Your task to perform on an android device: turn off smart reply in the gmail app Image 0: 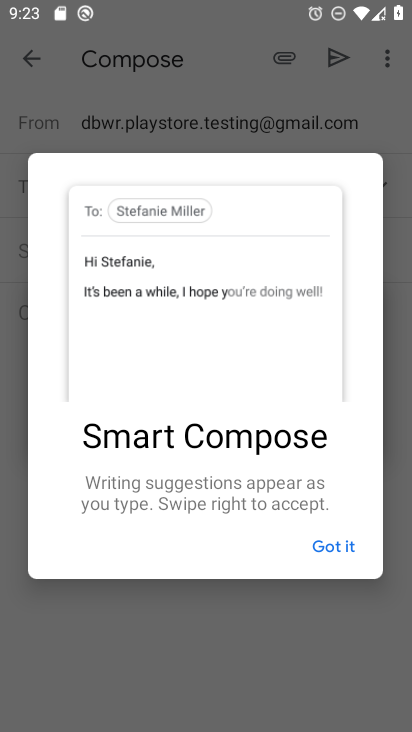
Step 0: press home button
Your task to perform on an android device: turn off smart reply in the gmail app Image 1: 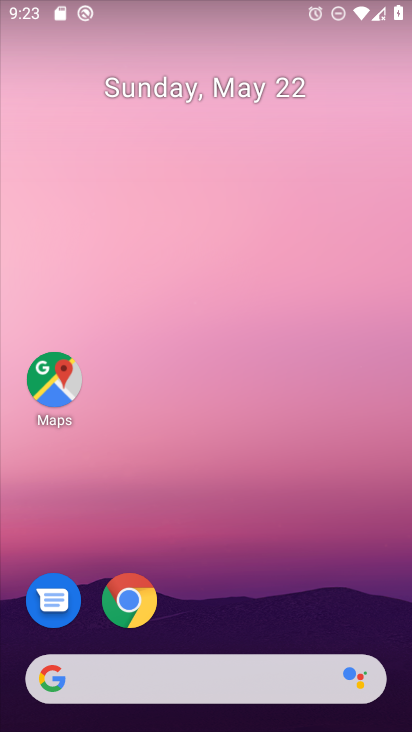
Step 1: drag from (186, 684) to (309, 47)
Your task to perform on an android device: turn off smart reply in the gmail app Image 2: 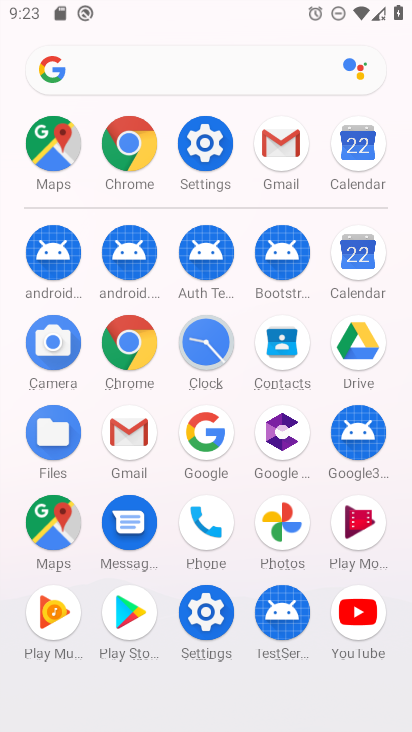
Step 2: click (129, 456)
Your task to perform on an android device: turn off smart reply in the gmail app Image 3: 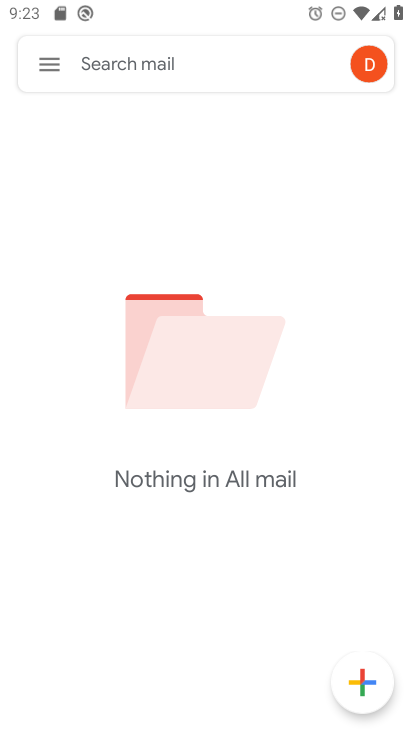
Step 3: click (52, 53)
Your task to perform on an android device: turn off smart reply in the gmail app Image 4: 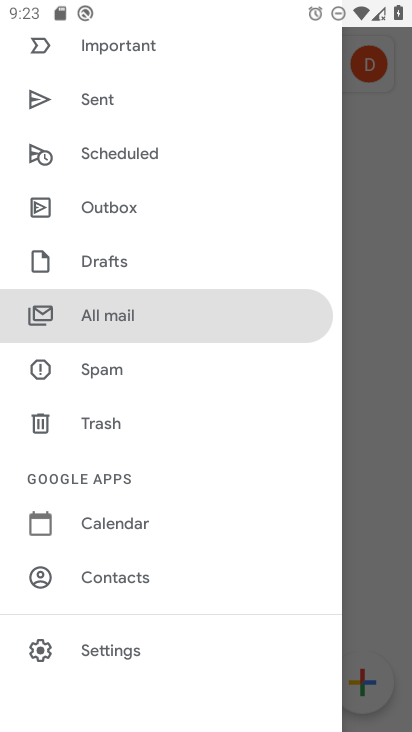
Step 4: click (106, 649)
Your task to perform on an android device: turn off smart reply in the gmail app Image 5: 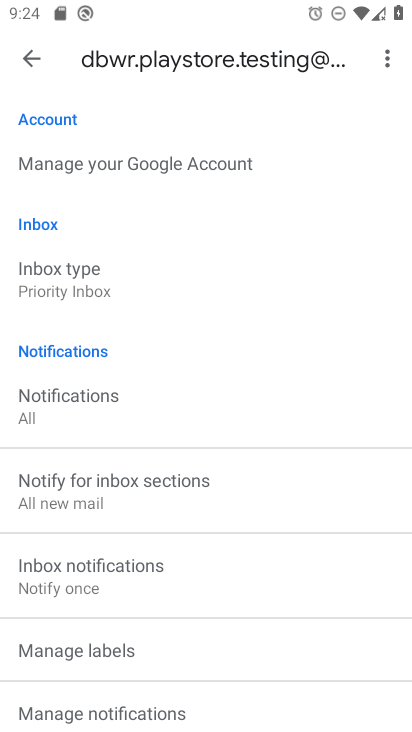
Step 5: drag from (157, 505) to (280, 156)
Your task to perform on an android device: turn off smart reply in the gmail app Image 6: 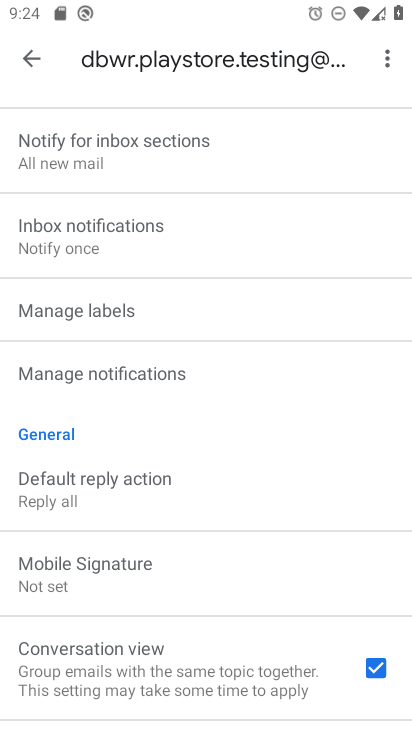
Step 6: drag from (191, 631) to (289, 182)
Your task to perform on an android device: turn off smart reply in the gmail app Image 7: 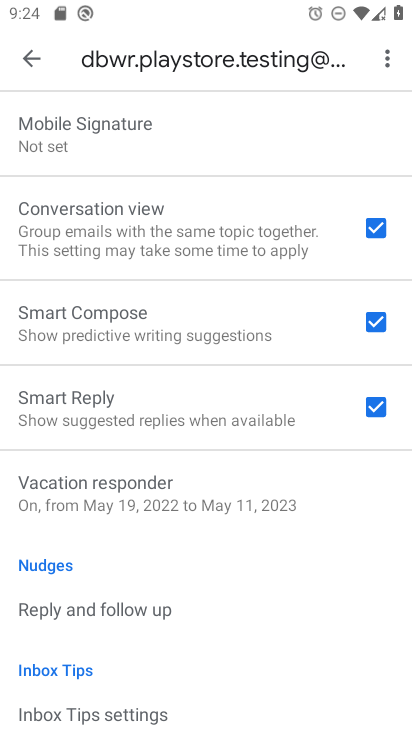
Step 7: drag from (154, 597) to (261, 237)
Your task to perform on an android device: turn off smart reply in the gmail app Image 8: 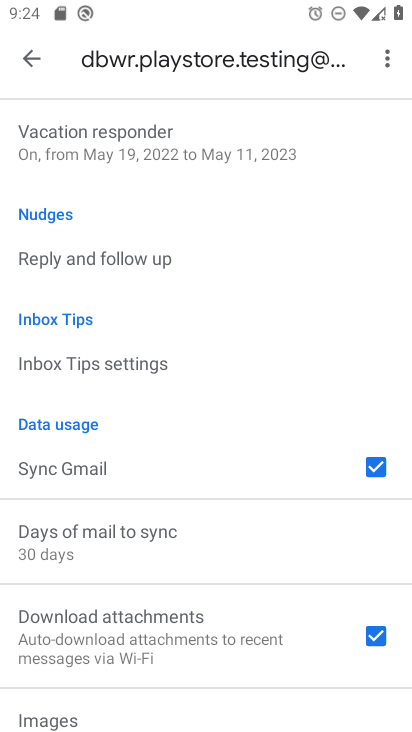
Step 8: drag from (245, 559) to (333, 233)
Your task to perform on an android device: turn off smart reply in the gmail app Image 9: 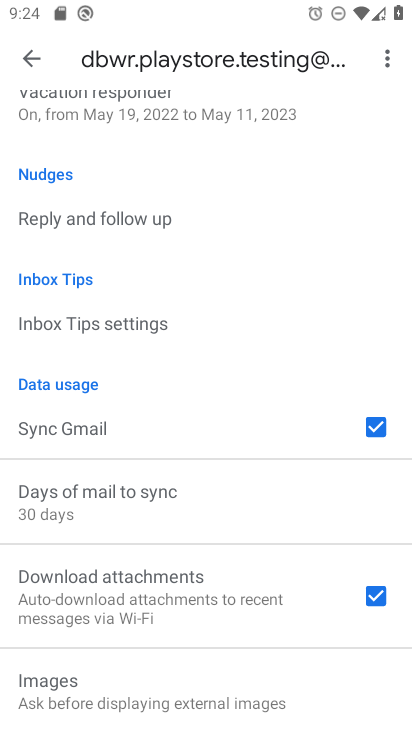
Step 9: drag from (204, 631) to (253, 451)
Your task to perform on an android device: turn off smart reply in the gmail app Image 10: 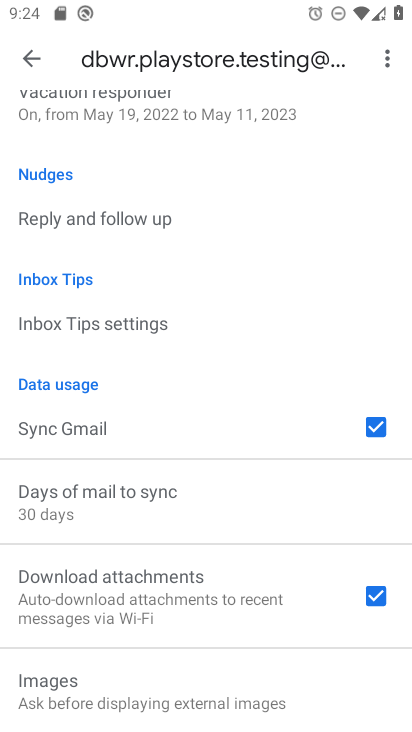
Step 10: drag from (206, 600) to (286, 237)
Your task to perform on an android device: turn off smart reply in the gmail app Image 11: 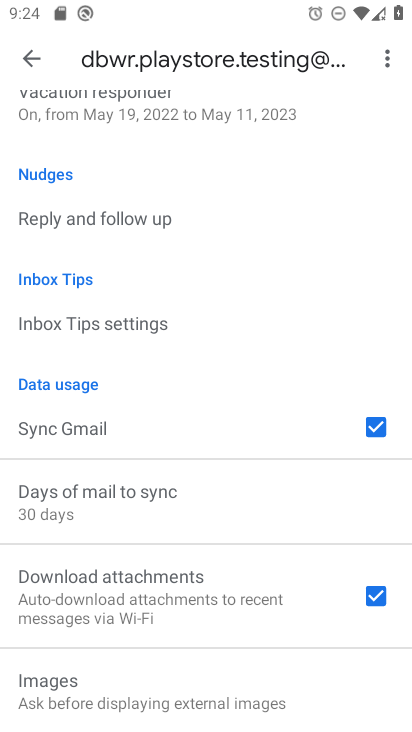
Step 11: drag from (281, 337) to (281, 731)
Your task to perform on an android device: turn off smart reply in the gmail app Image 12: 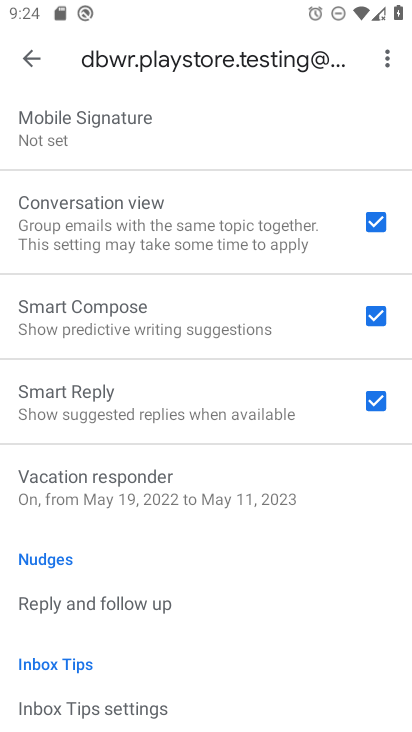
Step 12: drag from (295, 302) to (296, 506)
Your task to perform on an android device: turn off smart reply in the gmail app Image 13: 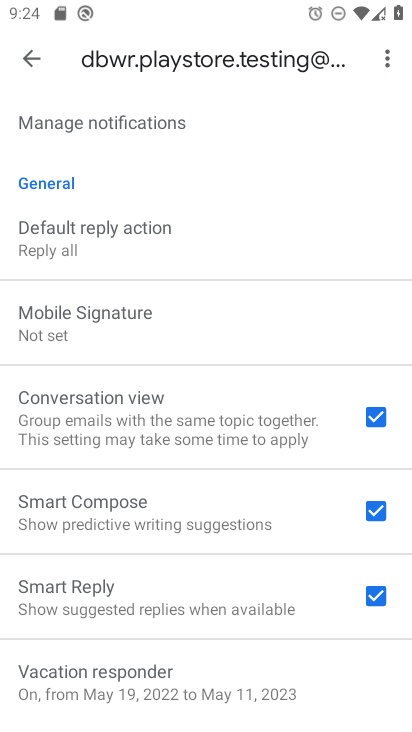
Step 13: click (362, 577)
Your task to perform on an android device: turn off smart reply in the gmail app Image 14: 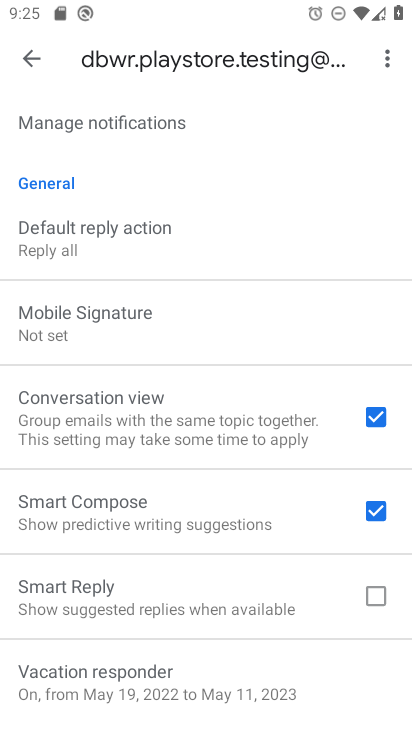
Step 14: task complete